Your task to perform on an android device: Go to network settings Image 0: 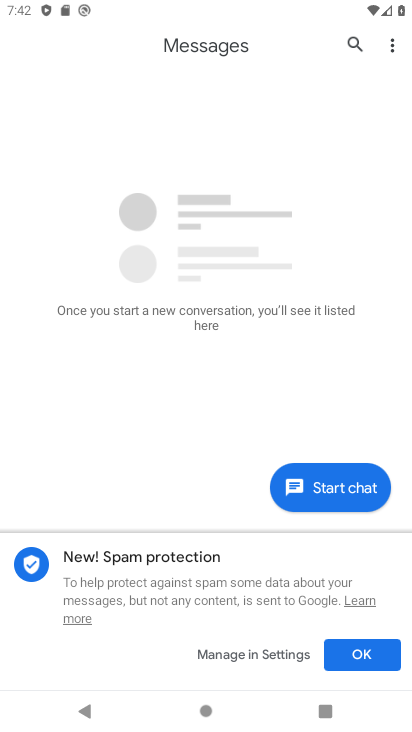
Step 0: press home button
Your task to perform on an android device: Go to network settings Image 1: 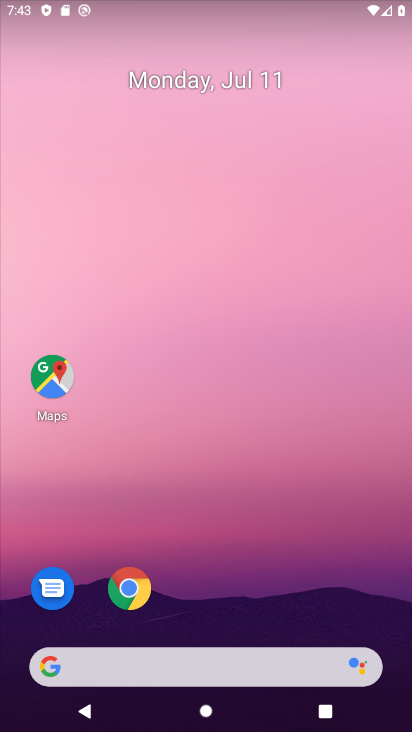
Step 1: drag from (249, 718) to (296, 213)
Your task to perform on an android device: Go to network settings Image 2: 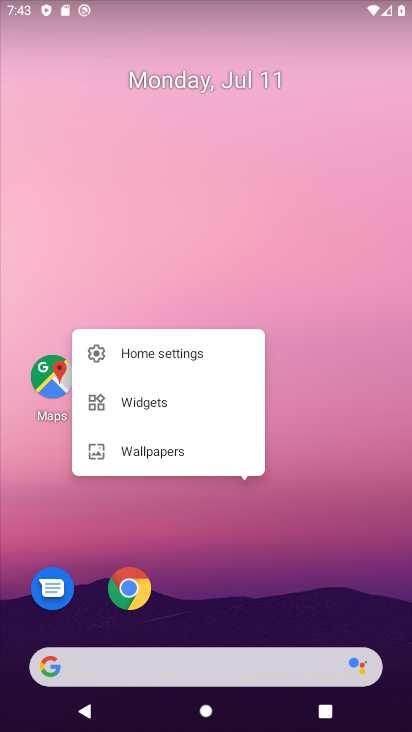
Step 2: press home button
Your task to perform on an android device: Go to network settings Image 3: 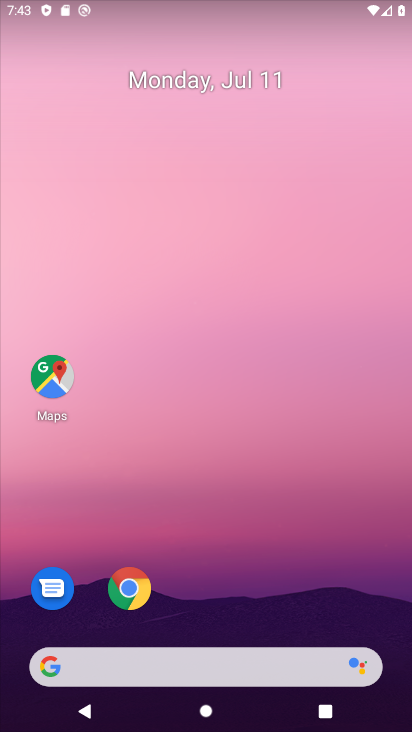
Step 3: drag from (249, 722) to (251, 248)
Your task to perform on an android device: Go to network settings Image 4: 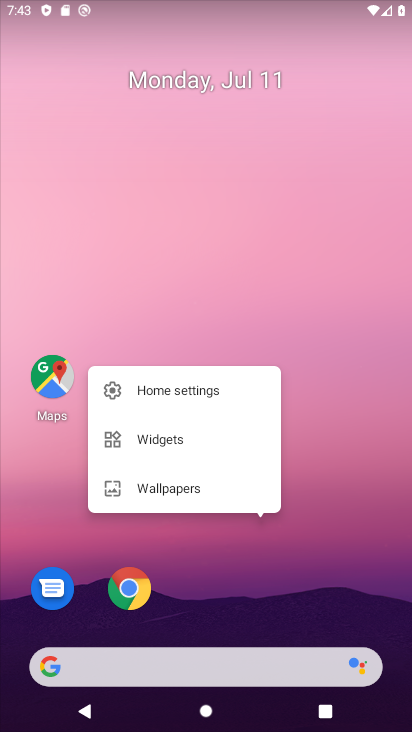
Step 4: press home button
Your task to perform on an android device: Go to network settings Image 5: 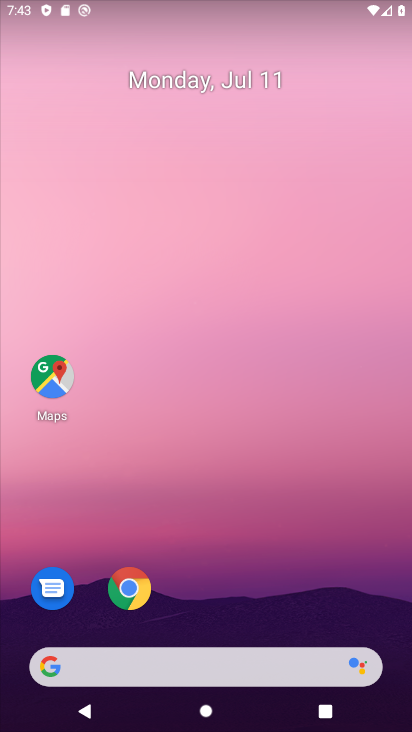
Step 5: drag from (272, 709) to (228, 100)
Your task to perform on an android device: Go to network settings Image 6: 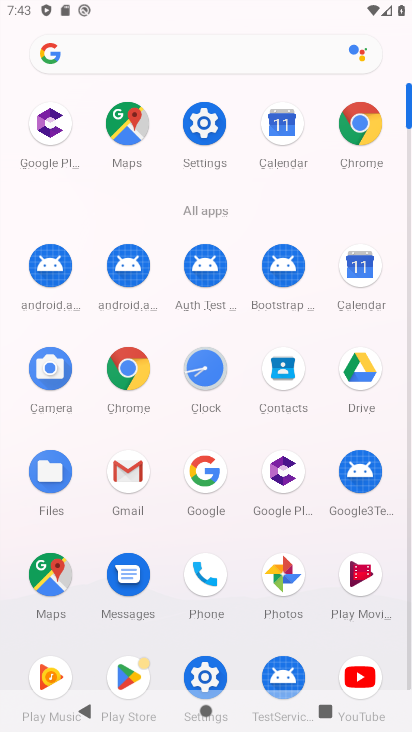
Step 6: click (204, 129)
Your task to perform on an android device: Go to network settings Image 7: 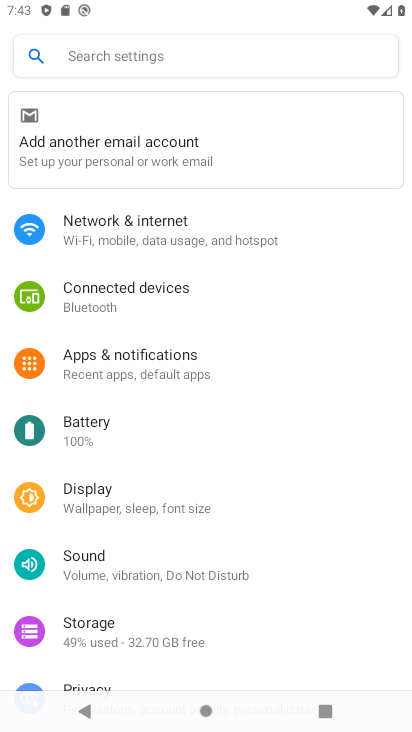
Step 7: click (206, 225)
Your task to perform on an android device: Go to network settings Image 8: 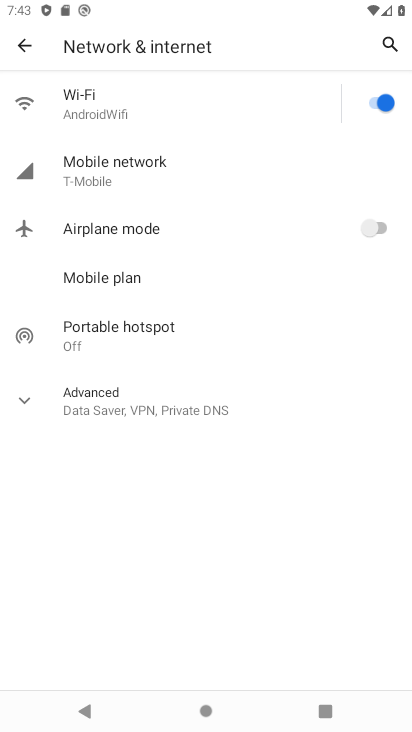
Step 8: task complete